Your task to perform on an android device: change timer sound Image 0: 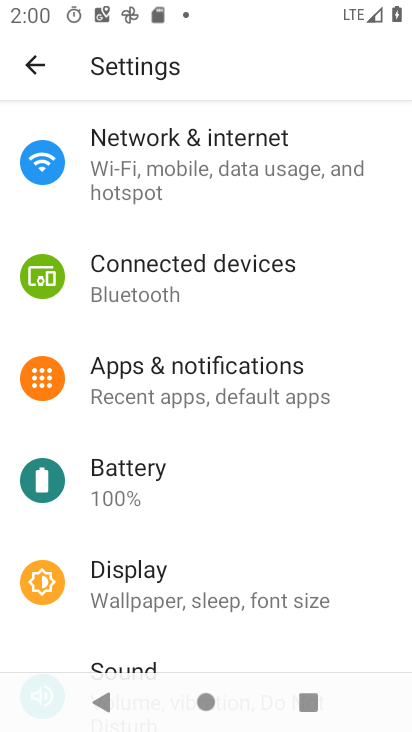
Step 0: type ""
Your task to perform on an android device: change timer sound Image 1: 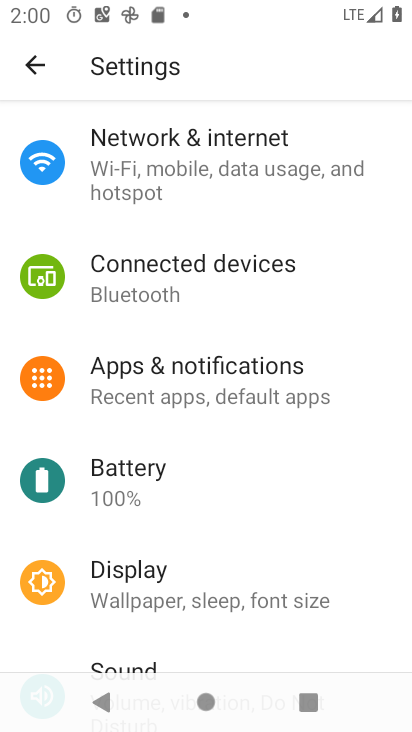
Step 1: drag from (222, 590) to (308, 108)
Your task to perform on an android device: change timer sound Image 2: 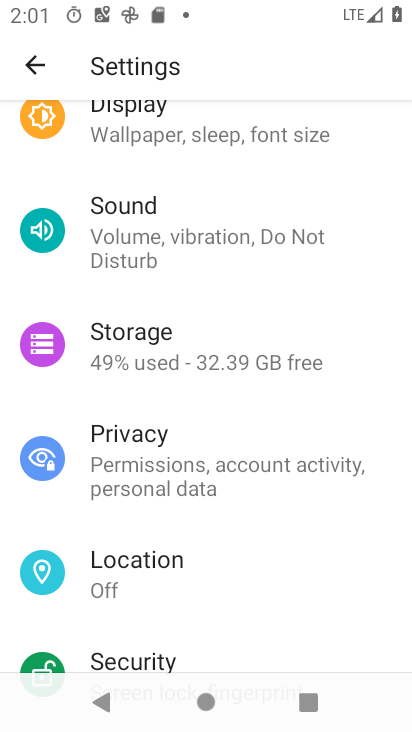
Step 2: press home button
Your task to perform on an android device: change timer sound Image 3: 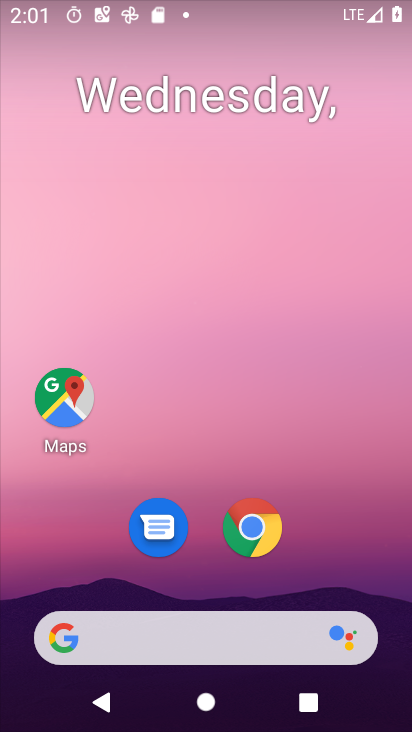
Step 3: drag from (217, 660) to (275, 176)
Your task to perform on an android device: change timer sound Image 4: 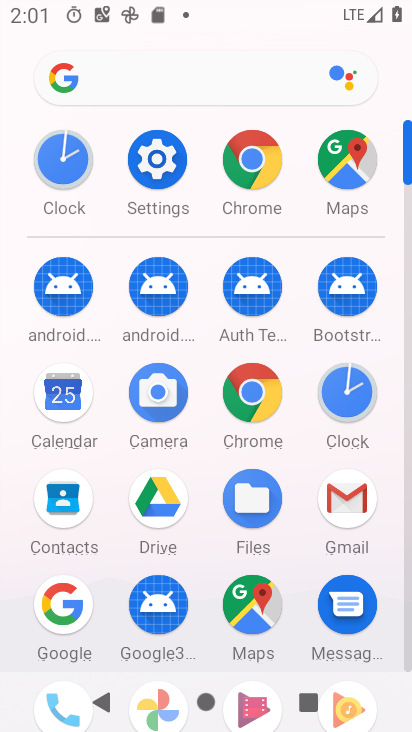
Step 4: click (347, 406)
Your task to perform on an android device: change timer sound Image 5: 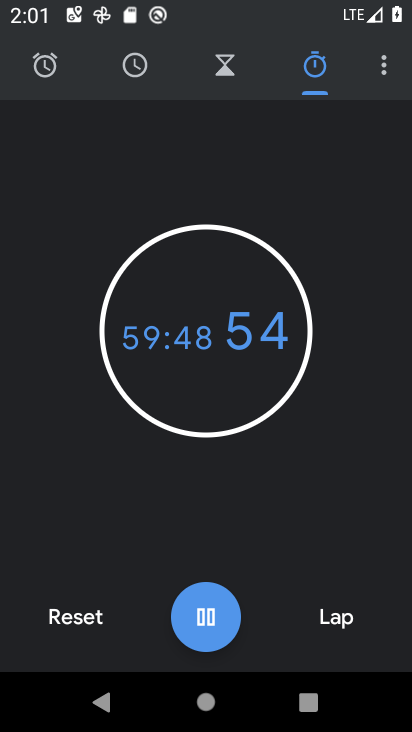
Step 5: click (383, 54)
Your task to perform on an android device: change timer sound Image 6: 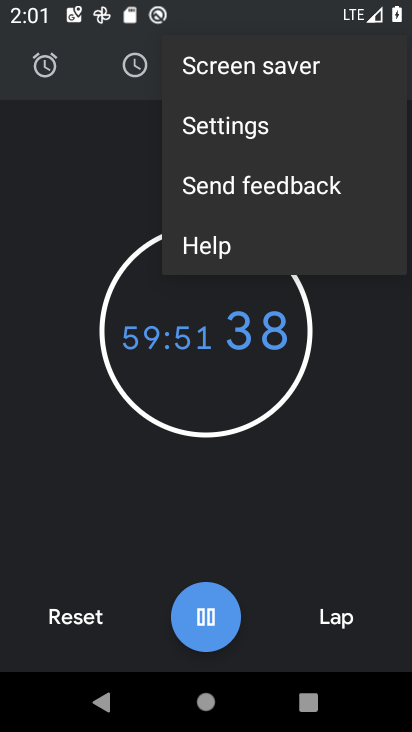
Step 6: click (268, 139)
Your task to perform on an android device: change timer sound Image 7: 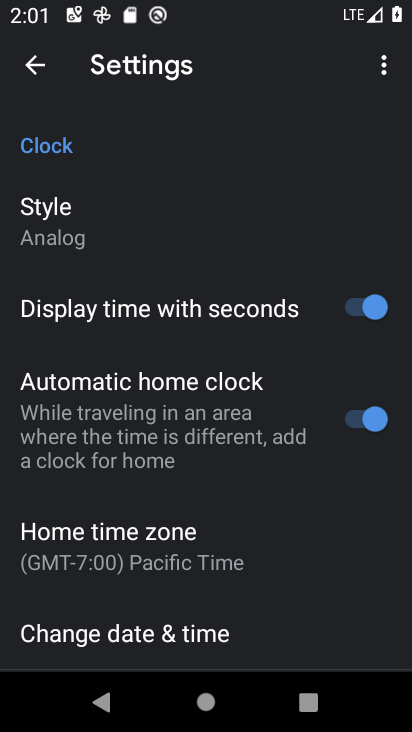
Step 7: drag from (206, 495) to (243, 136)
Your task to perform on an android device: change timer sound Image 8: 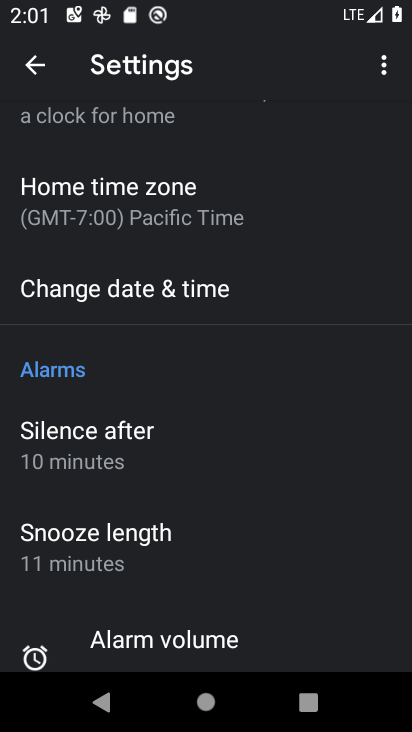
Step 8: drag from (199, 562) to (227, 271)
Your task to perform on an android device: change timer sound Image 9: 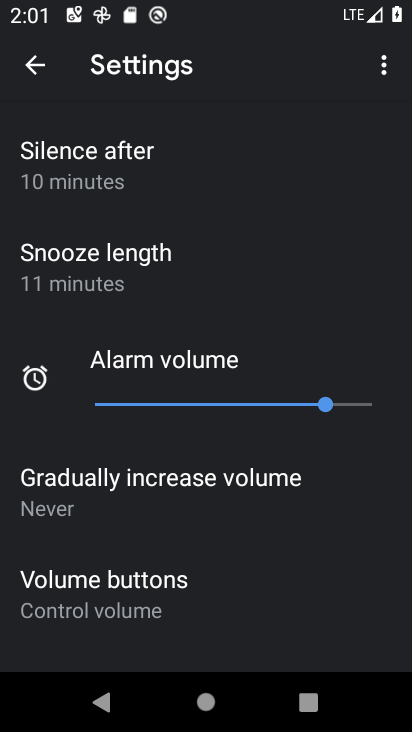
Step 9: click (135, 277)
Your task to perform on an android device: change timer sound Image 10: 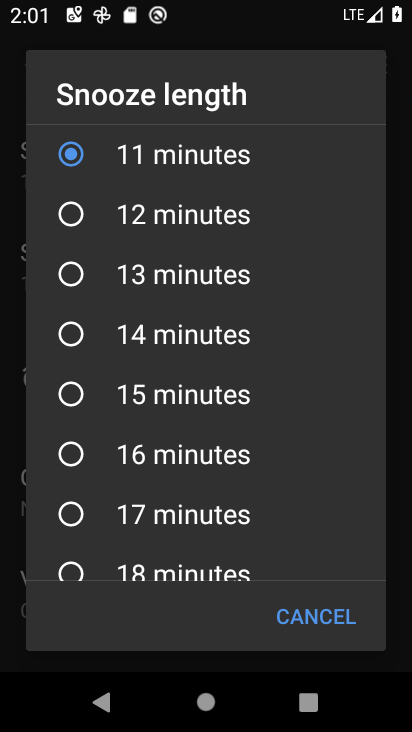
Step 10: press back button
Your task to perform on an android device: change timer sound Image 11: 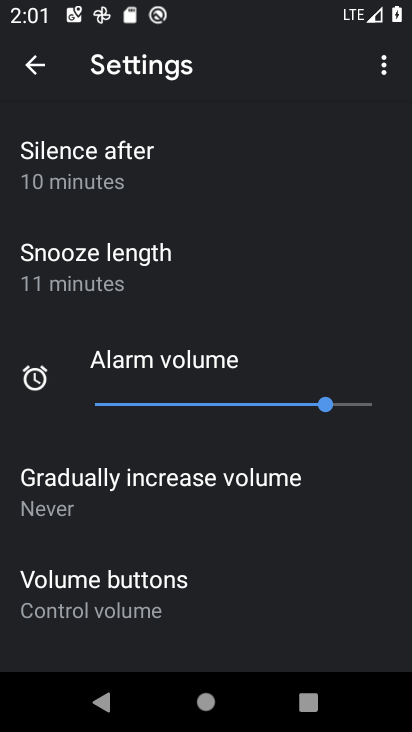
Step 11: drag from (327, 485) to (384, 10)
Your task to perform on an android device: change timer sound Image 12: 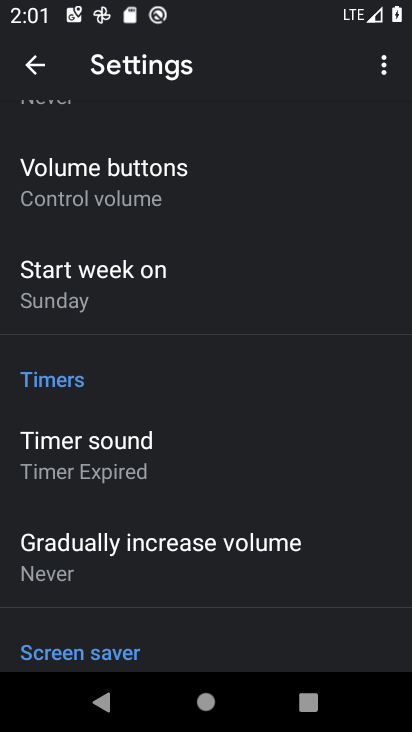
Step 12: click (169, 463)
Your task to perform on an android device: change timer sound Image 13: 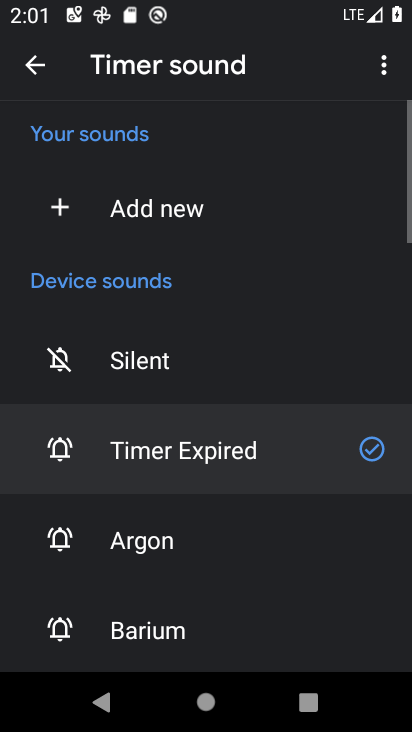
Step 13: click (134, 554)
Your task to perform on an android device: change timer sound Image 14: 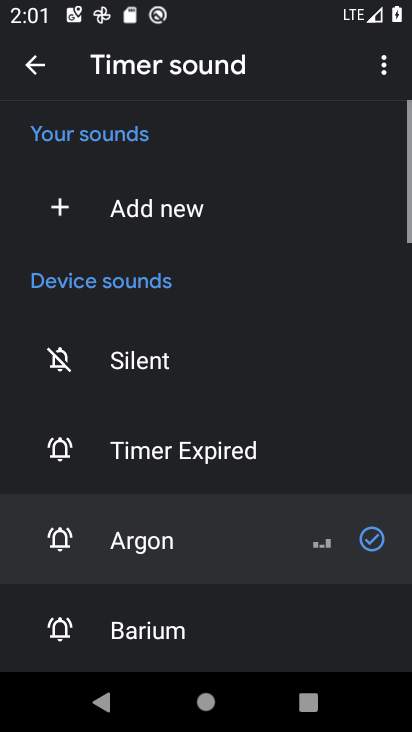
Step 14: task complete